Your task to perform on an android device: turn pop-ups off in chrome Image 0: 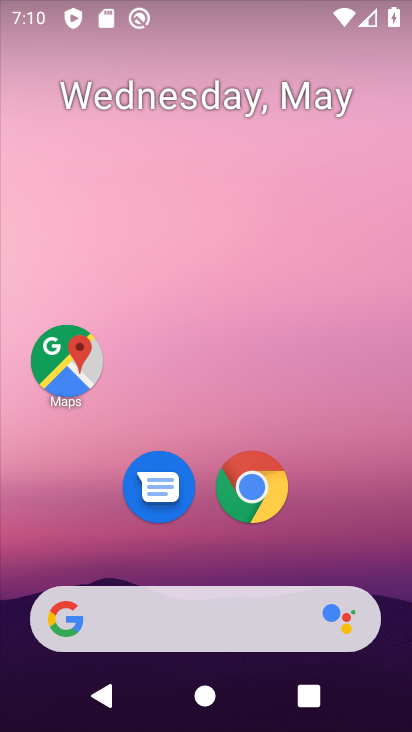
Step 0: drag from (297, 653) to (178, 127)
Your task to perform on an android device: turn pop-ups off in chrome Image 1: 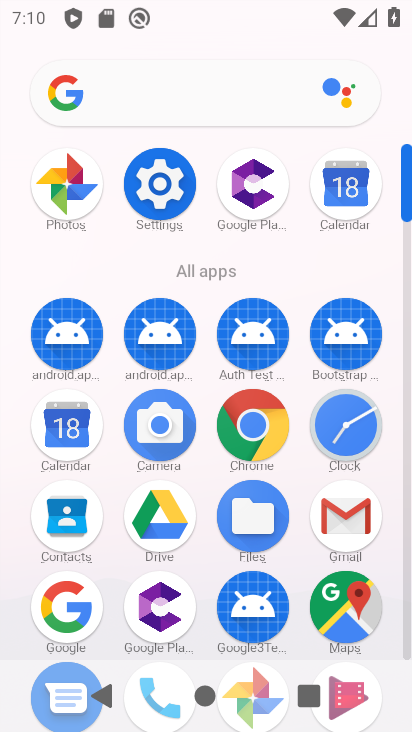
Step 1: click (267, 427)
Your task to perform on an android device: turn pop-ups off in chrome Image 2: 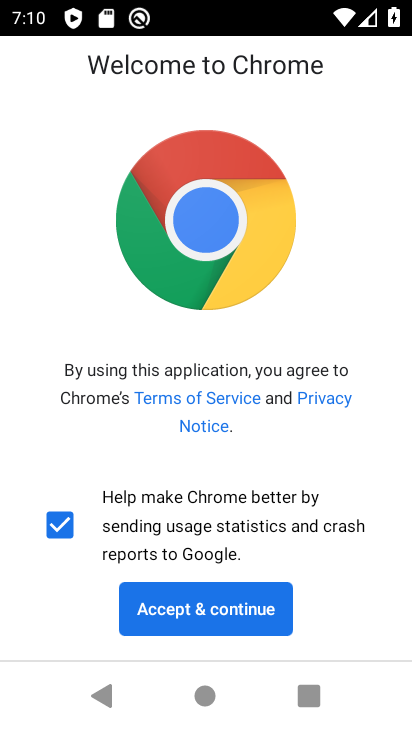
Step 2: click (227, 635)
Your task to perform on an android device: turn pop-ups off in chrome Image 3: 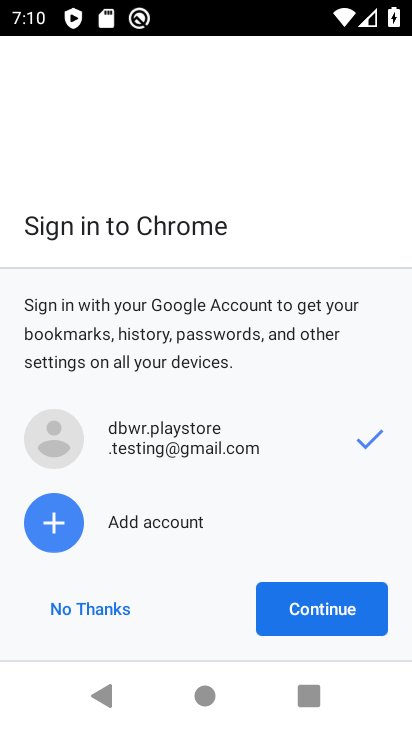
Step 3: click (328, 604)
Your task to perform on an android device: turn pop-ups off in chrome Image 4: 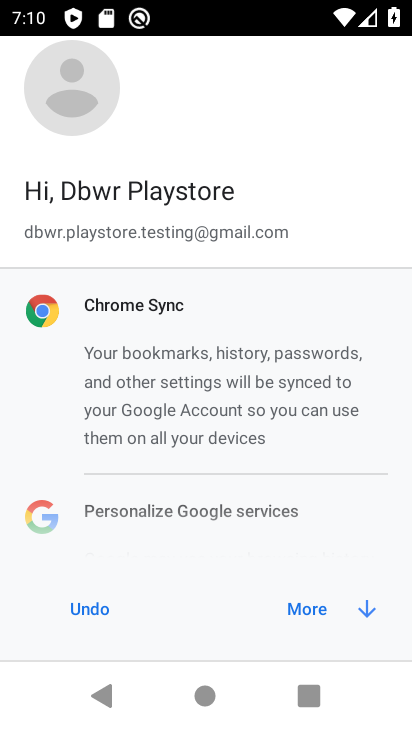
Step 4: click (364, 620)
Your task to perform on an android device: turn pop-ups off in chrome Image 5: 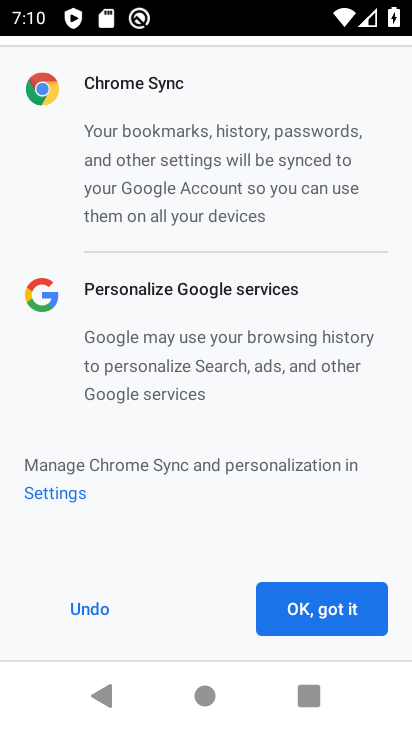
Step 5: click (327, 606)
Your task to perform on an android device: turn pop-ups off in chrome Image 6: 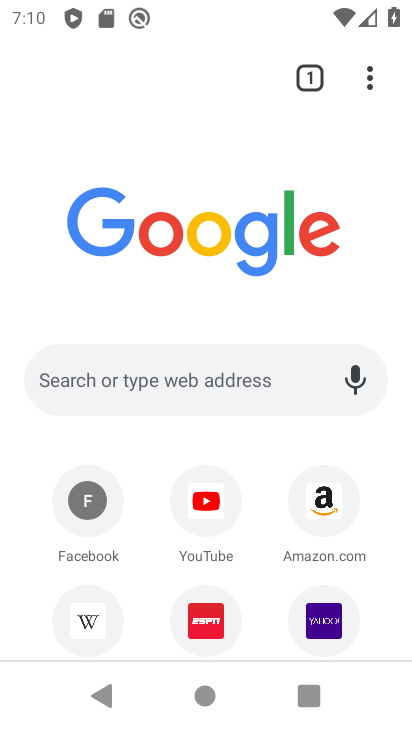
Step 6: click (356, 93)
Your task to perform on an android device: turn pop-ups off in chrome Image 7: 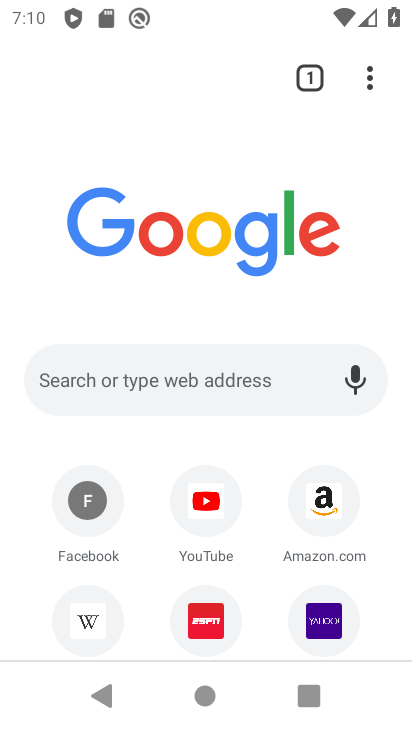
Step 7: click (368, 94)
Your task to perform on an android device: turn pop-ups off in chrome Image 8: 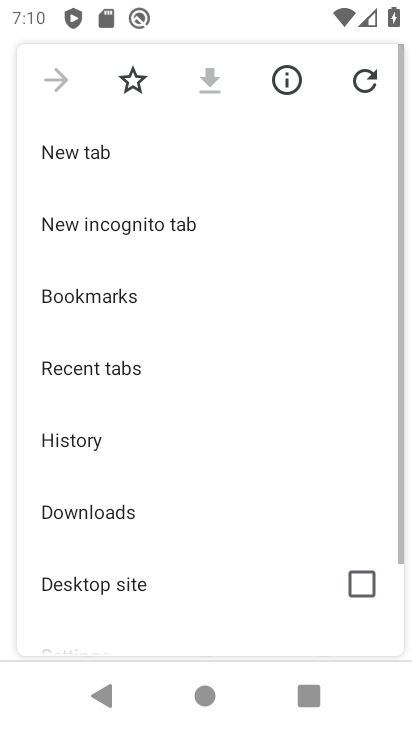
Step 8: drag from (182, 522) to (205, 295)
Your task to perform on an android device: turn pop-ups off in chrome Image 9: 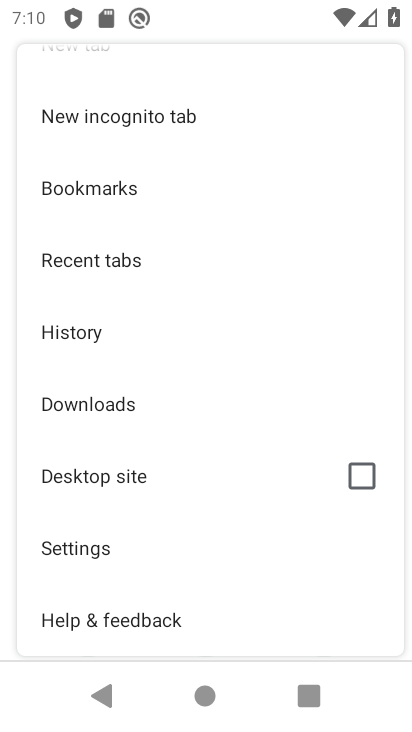
Step 9: click (103, 544)
Your task to perform on an android device: turn pop-ups off in chrome Image 10: 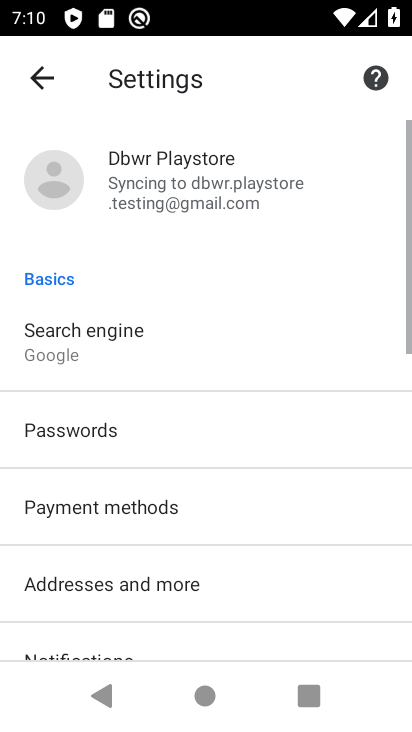
Step 10: drag from (121, 481) to (144, 276)
Your task to perform on an android device: turn pop-ups off in chrome Image 11: 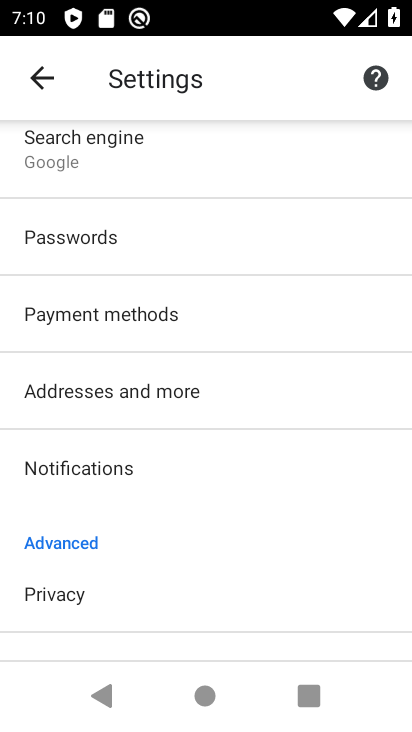
Step 11: drag from (199, 555) to (174, 438)
Your task to perform on an android device: turn pop-ups off in chrome Image 12: 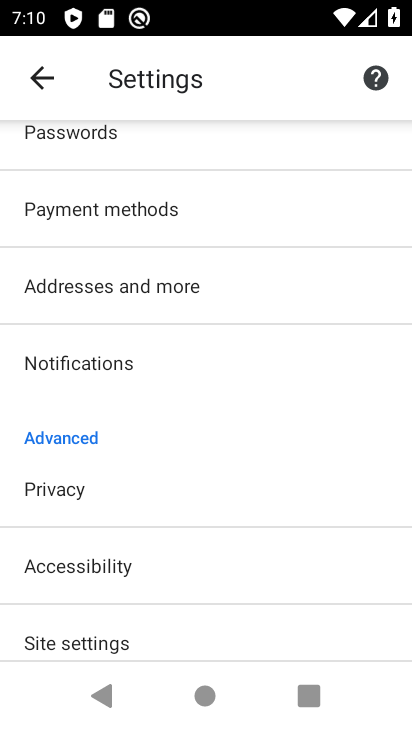
Step 12: drag from (228, 603) to (196, 425)
Your task to perform on an android device: turn pop-ups off in chrome Image 13: 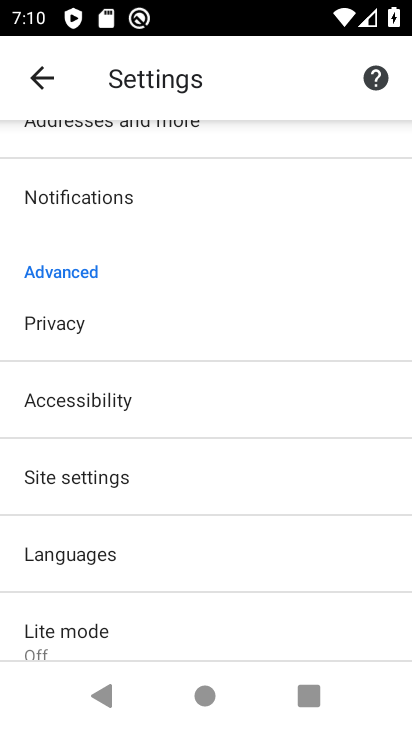
Step 13: click (74, 473)
Your task to perform on an android device: turn pop-ups off in chrome Image 14: 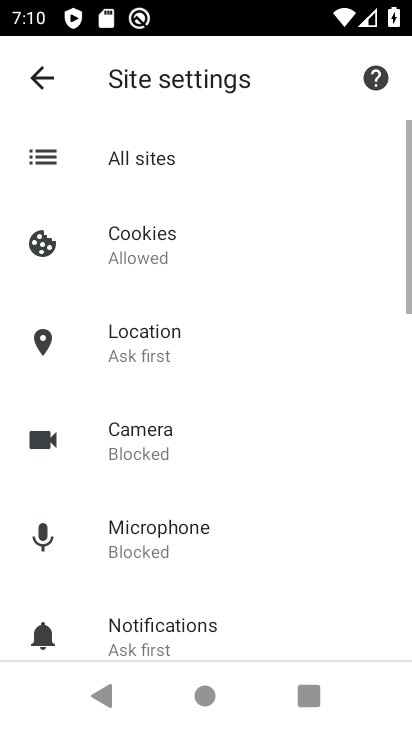
Step 14: drag from (181, 559) to (173, 316)
Your task to perform on an android device: turn pop-ups off in chrome Image 15: 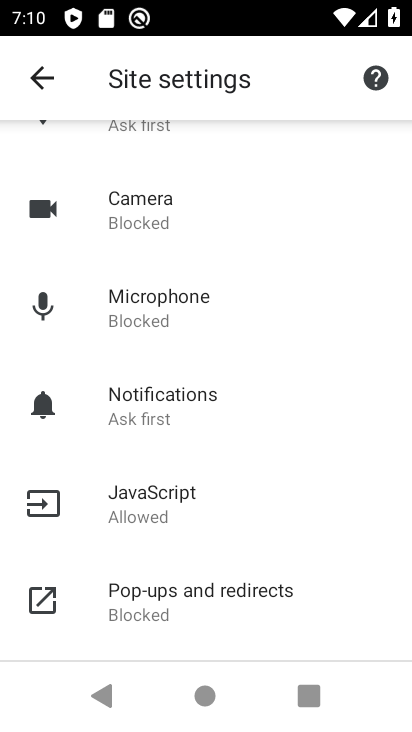
Step 15: click (214, 590)
Your task to perform on an android device: turn pop-ups off in chrome Image 16: 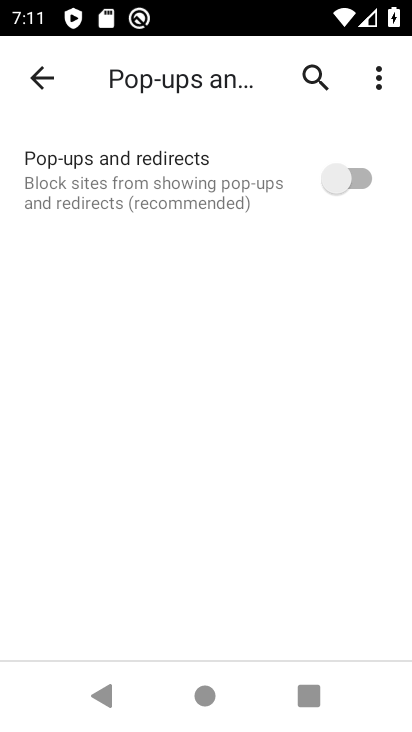
Step 16: click (327, 187)
Your task to perform on an android device: turn pop-ups off in chrome Image 17: 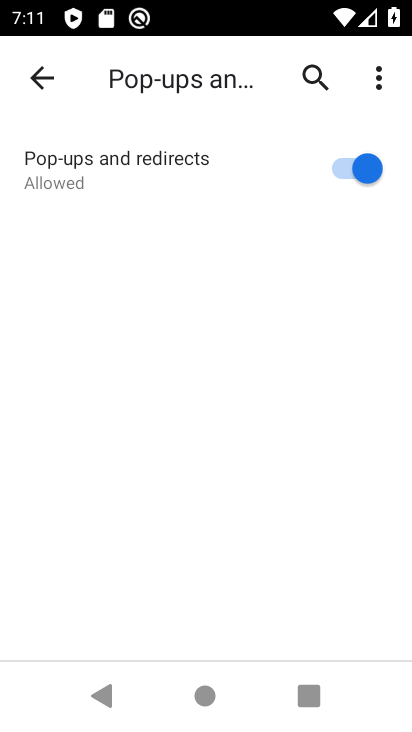
Step 17: click (326, 189)
Your task to perform on an android device: turn pop-ups off in chrome Image 18: 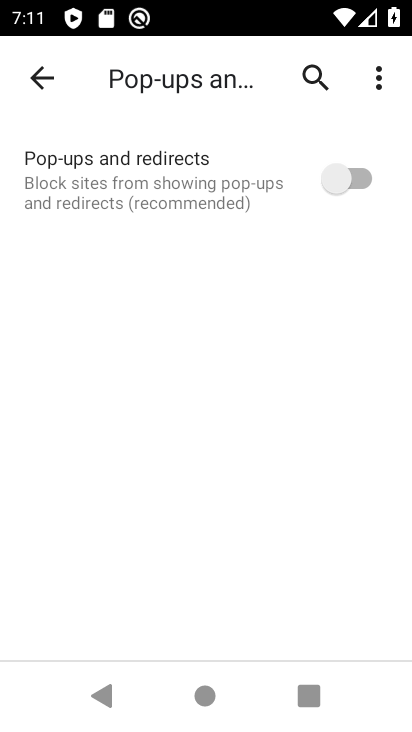
Step 18: task complete